Your task to perform on an android device: When is my next meeting? Image 0: 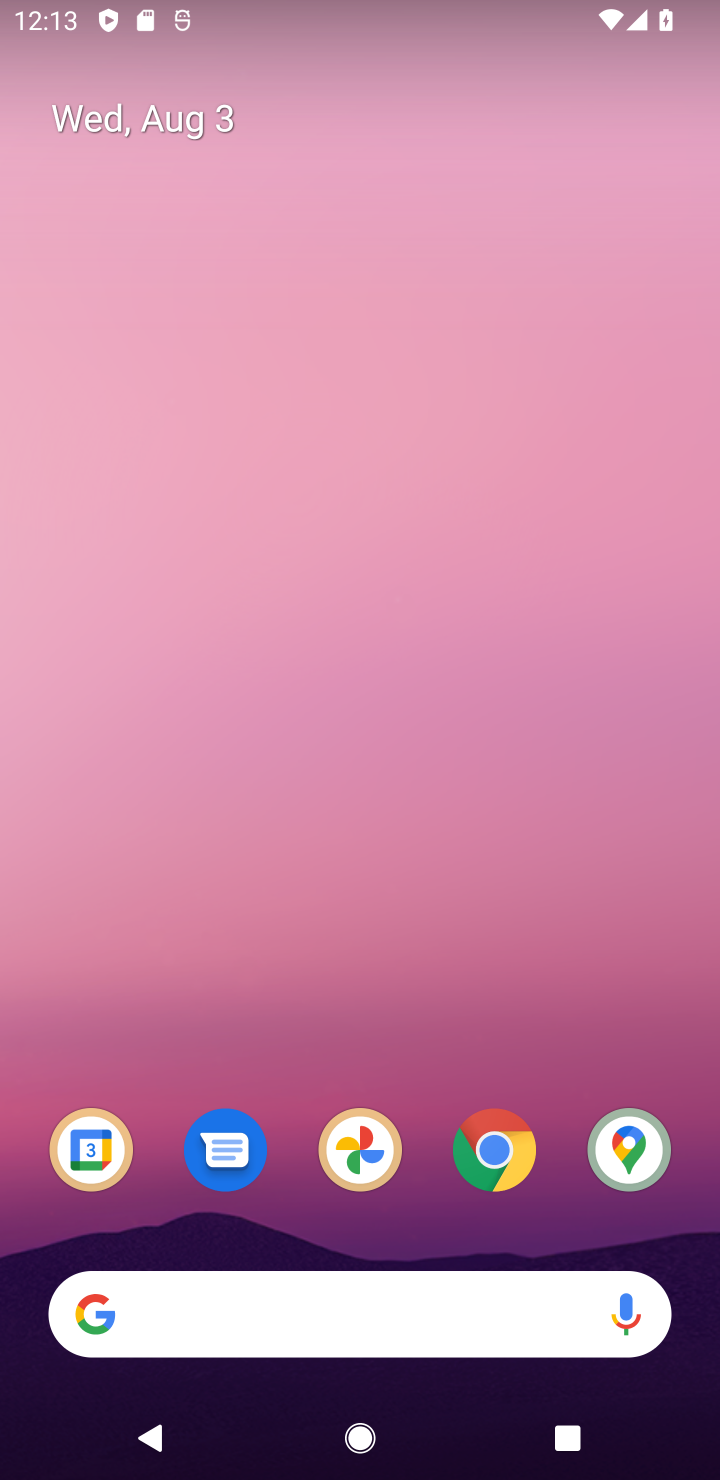
Step 0: press home button
Your task to perform on an android device: When is my next meeting? Image 1: 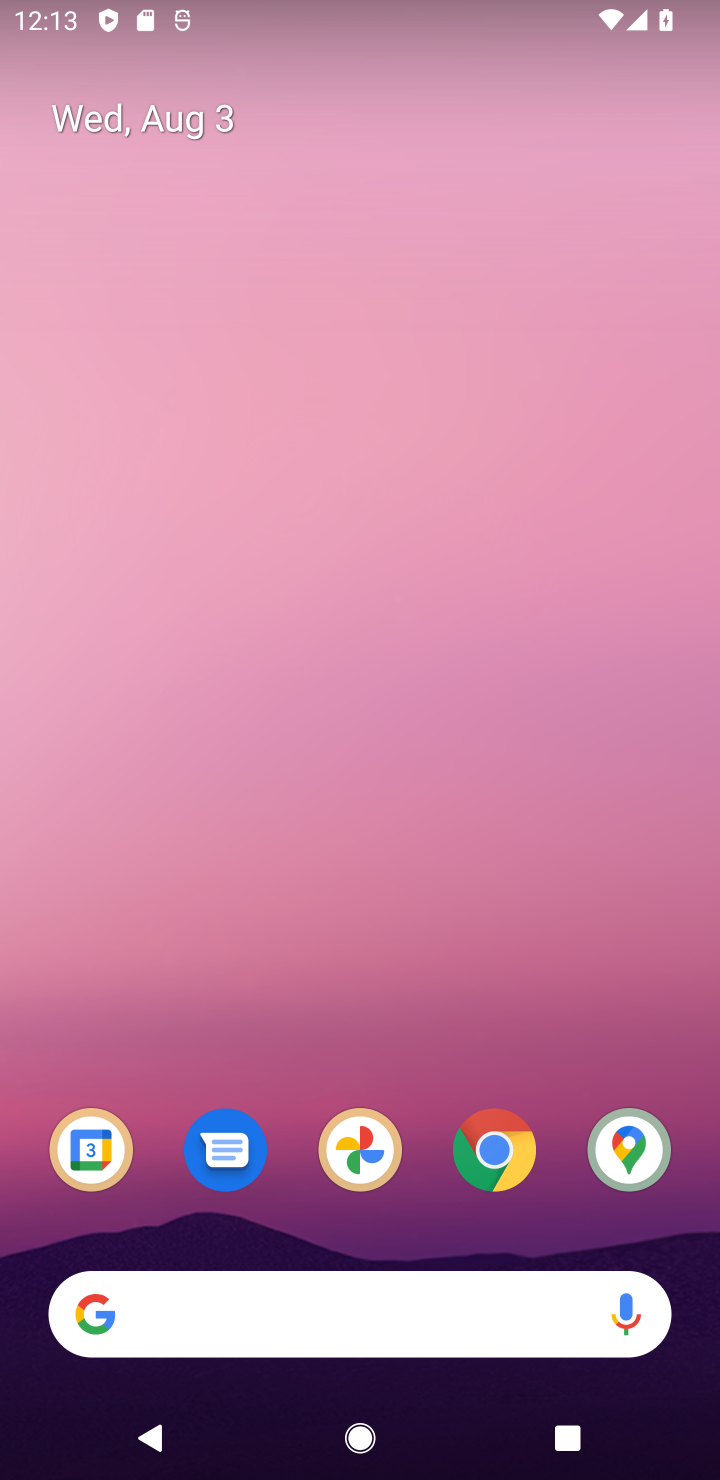
Step 1: drag from (435, 1176) to (438, 303)
Your task to perform on an android device: When is my next meeting? Image 2: 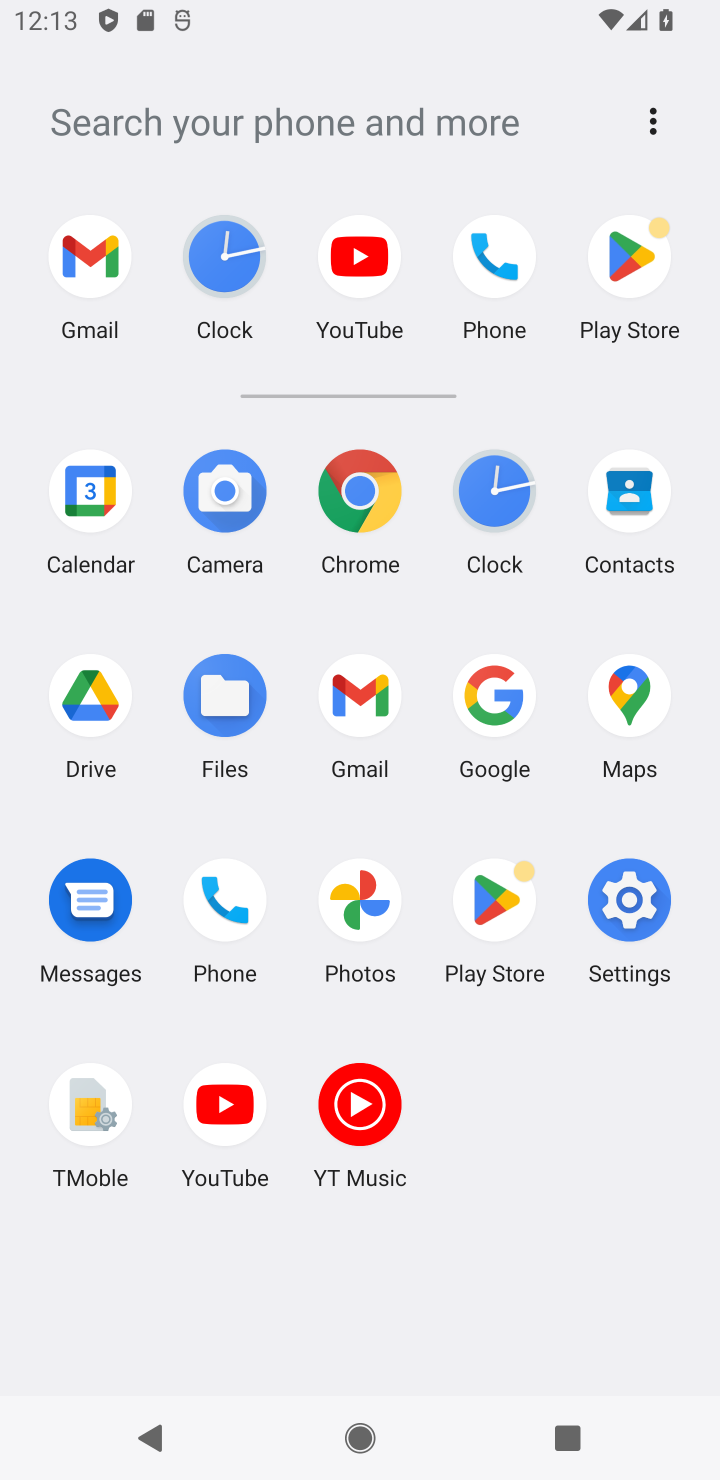
Step 2: click (94, 492)
Your task to perform on an android device: When is my next meeting? Image 3: 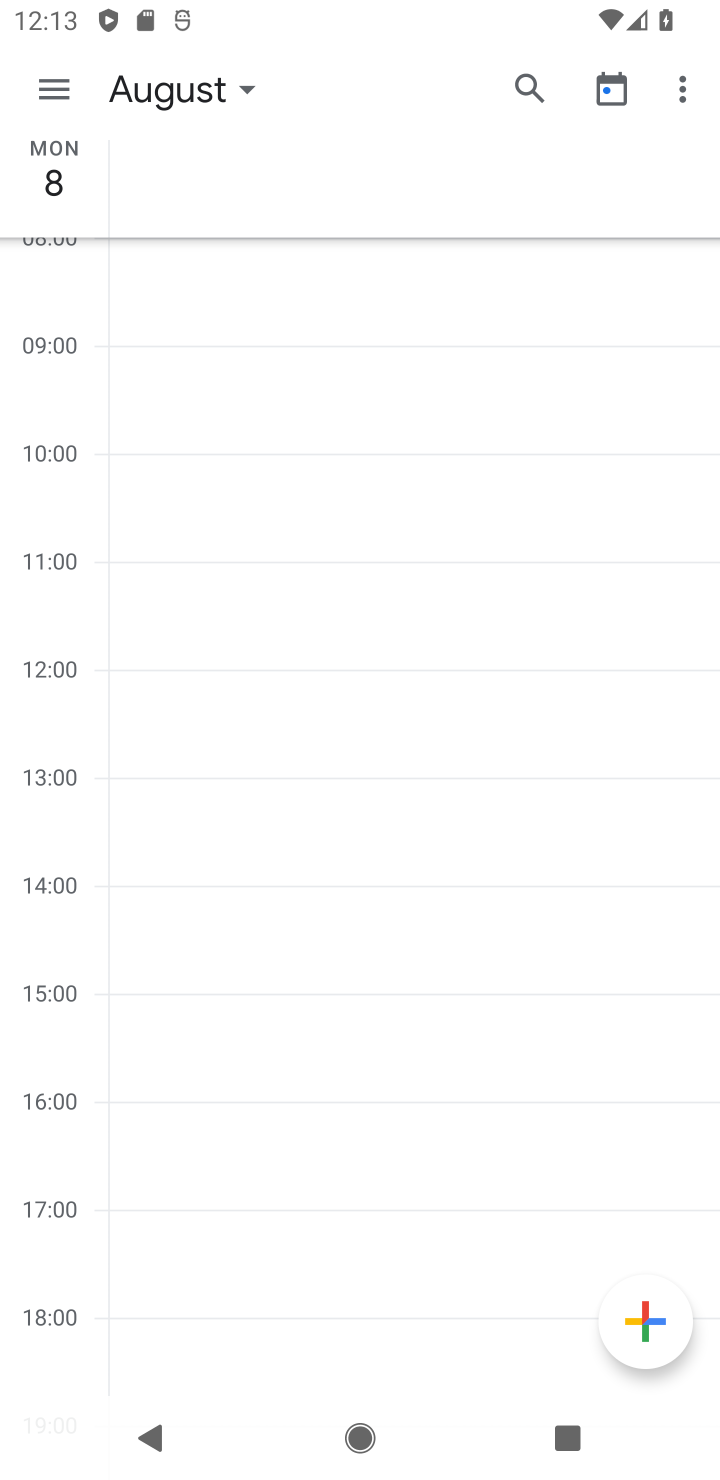
Step 3: click (57, 87)
Your task to perform on an android device: When is my next meeting? Image 4: 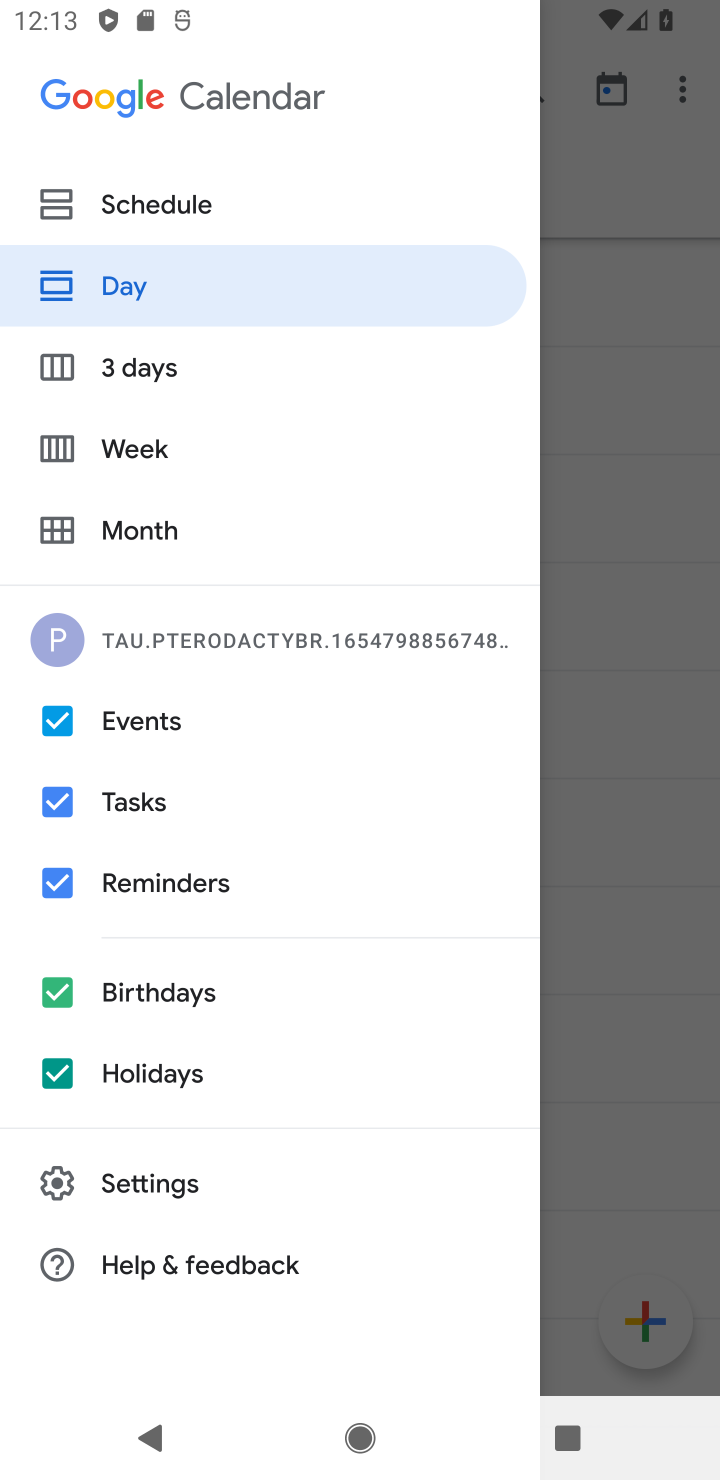
Step 4: click (199, 209)
Your task to perform on an android device: When is my next meeting? Image 5: 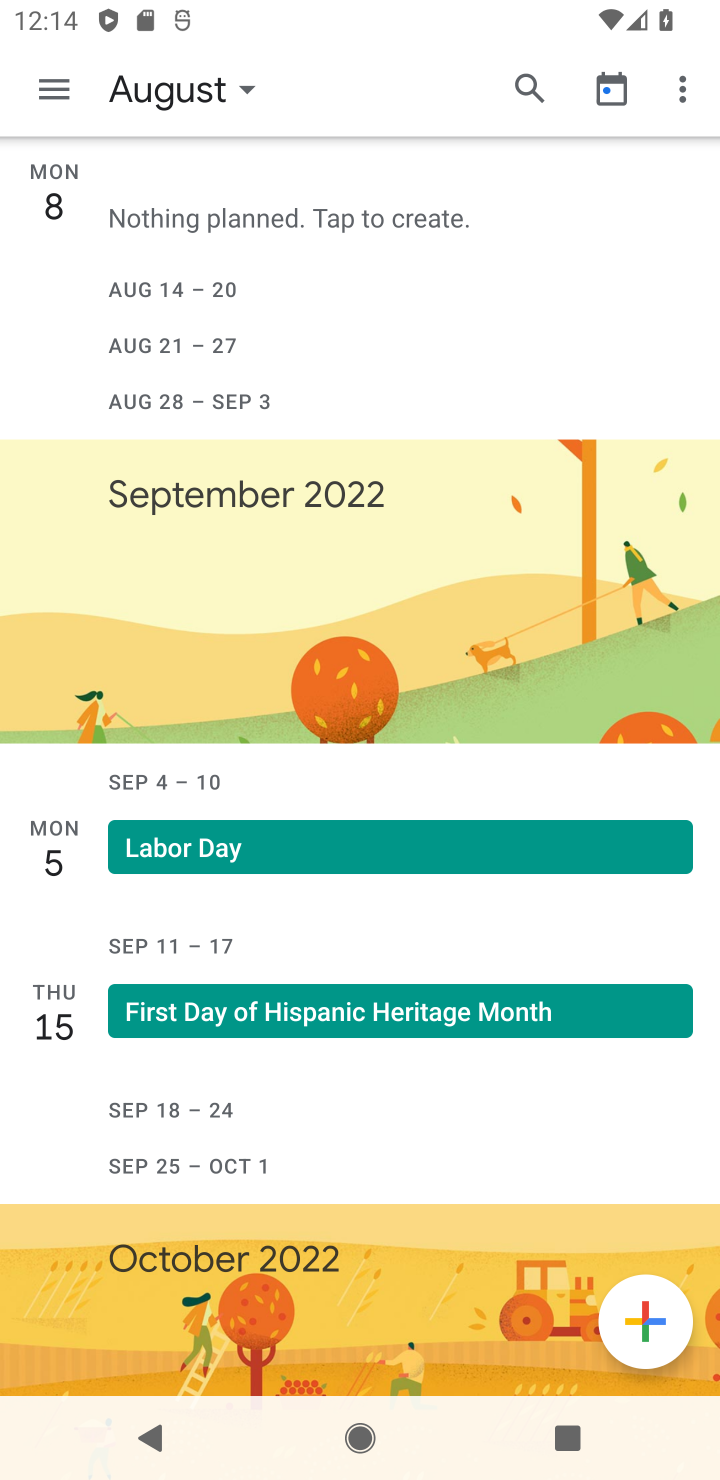
Step 5: task complete